Your task to perform on an android device: Search for asus zenbook on newegg, select the first entry, add it to the cart, then select checkout. Image 0: 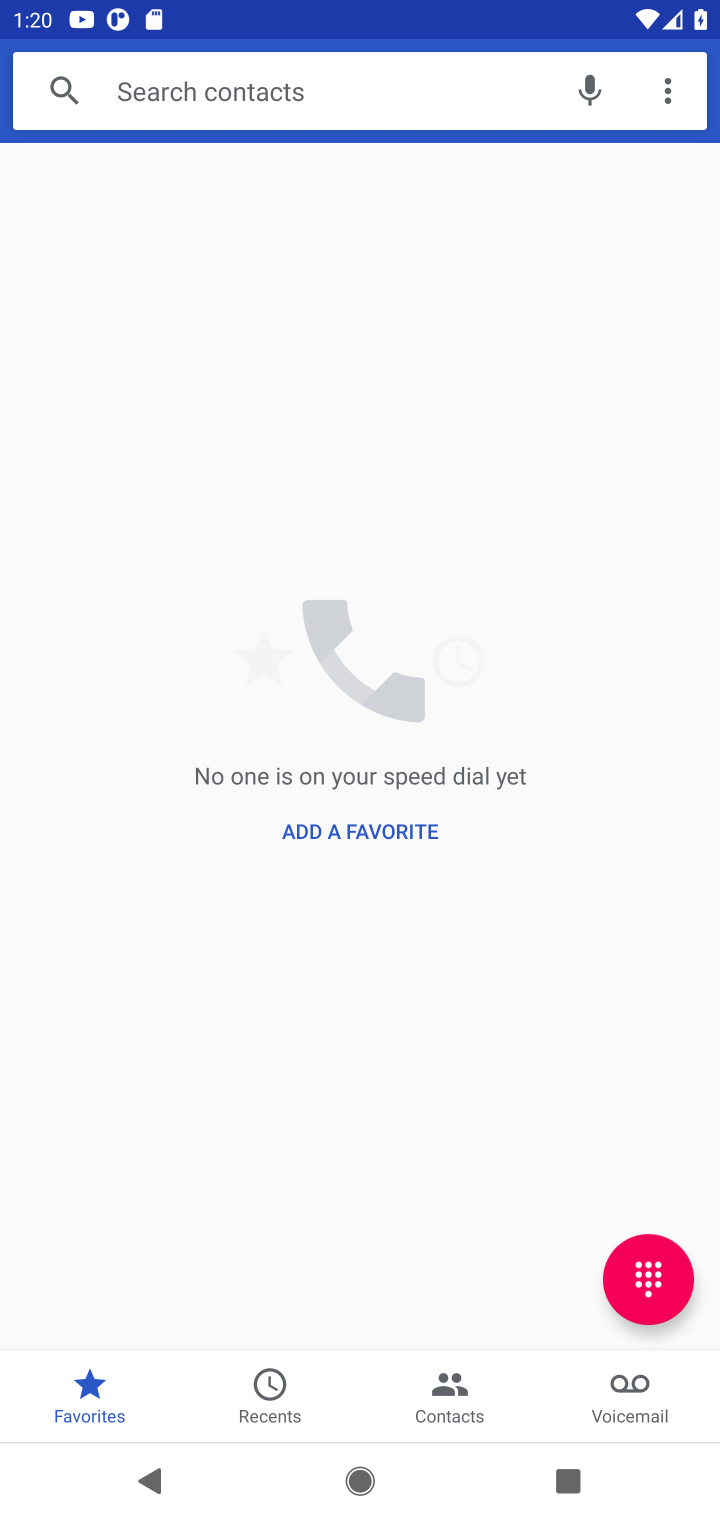
Step 0: press home button
Your task to perform on an android device: Search for asus zenbook on newegg, select the first entry, add it to the cart, then select checkout. Image 1: 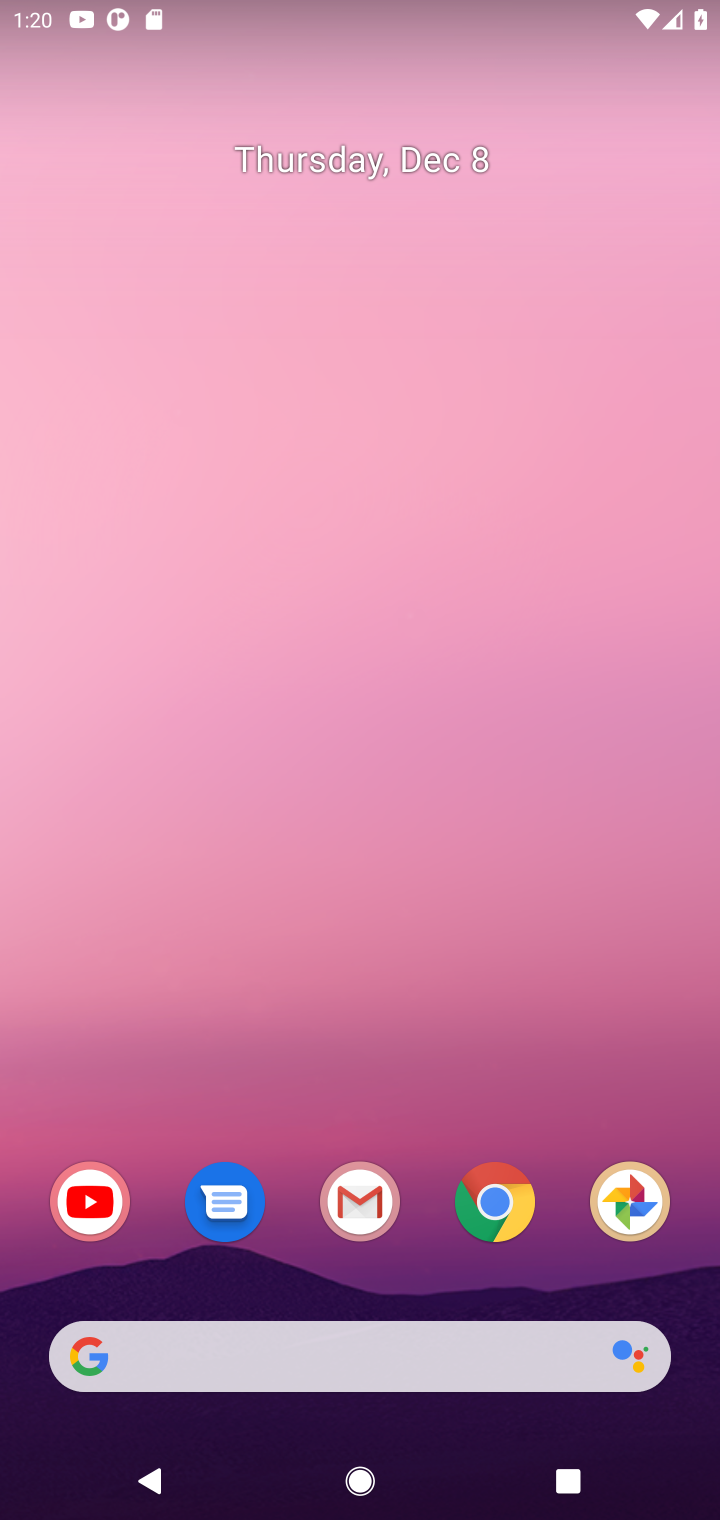
Step 1: click (488, 1212)
Your task to perform on an android device: Search for asus zenbook on newegg, select the first entry, add it to the cart, then select checkout. Image 2: 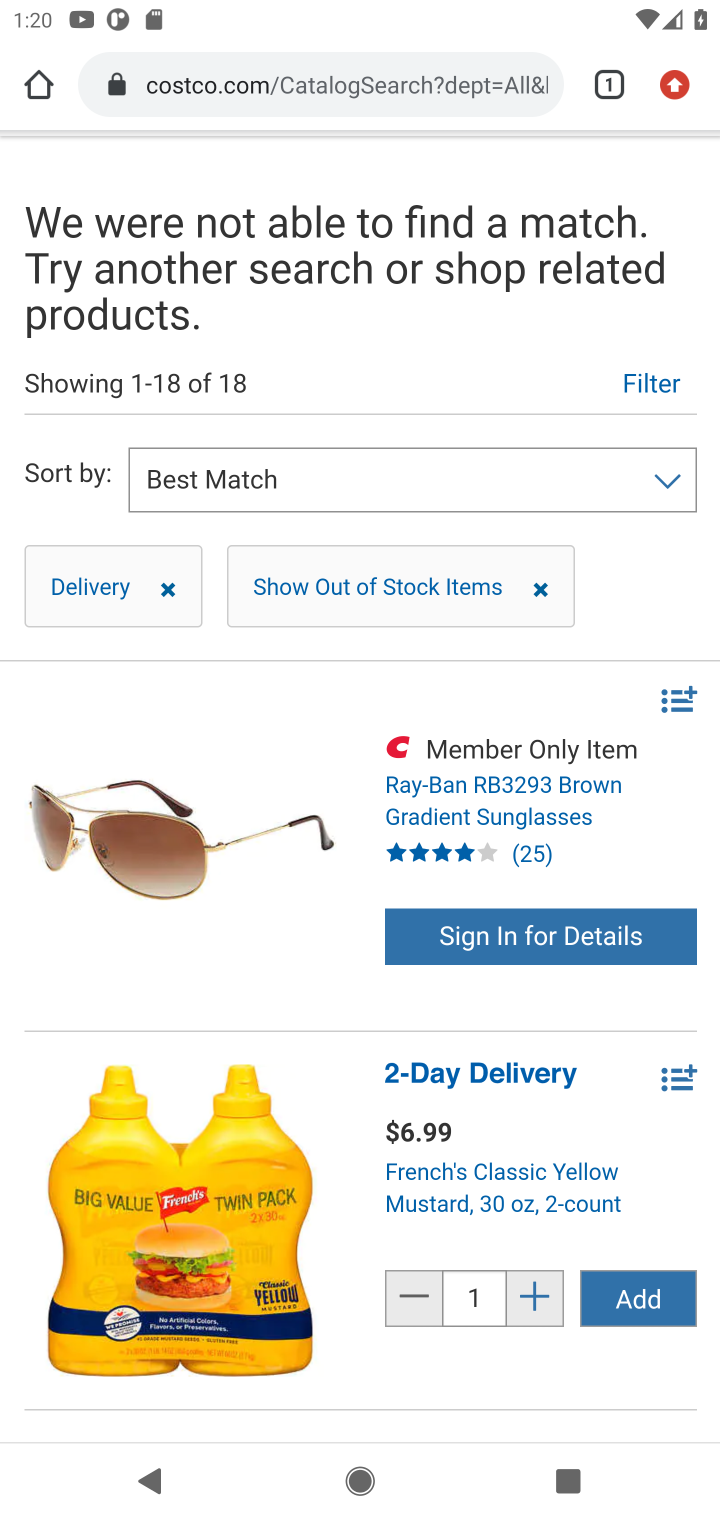
Step 2: click (213, 85)
Your task to perform on an android device: Search for asus zenbook on newegg, select the first entry, add it to the cart, then select checkout. Image 3: 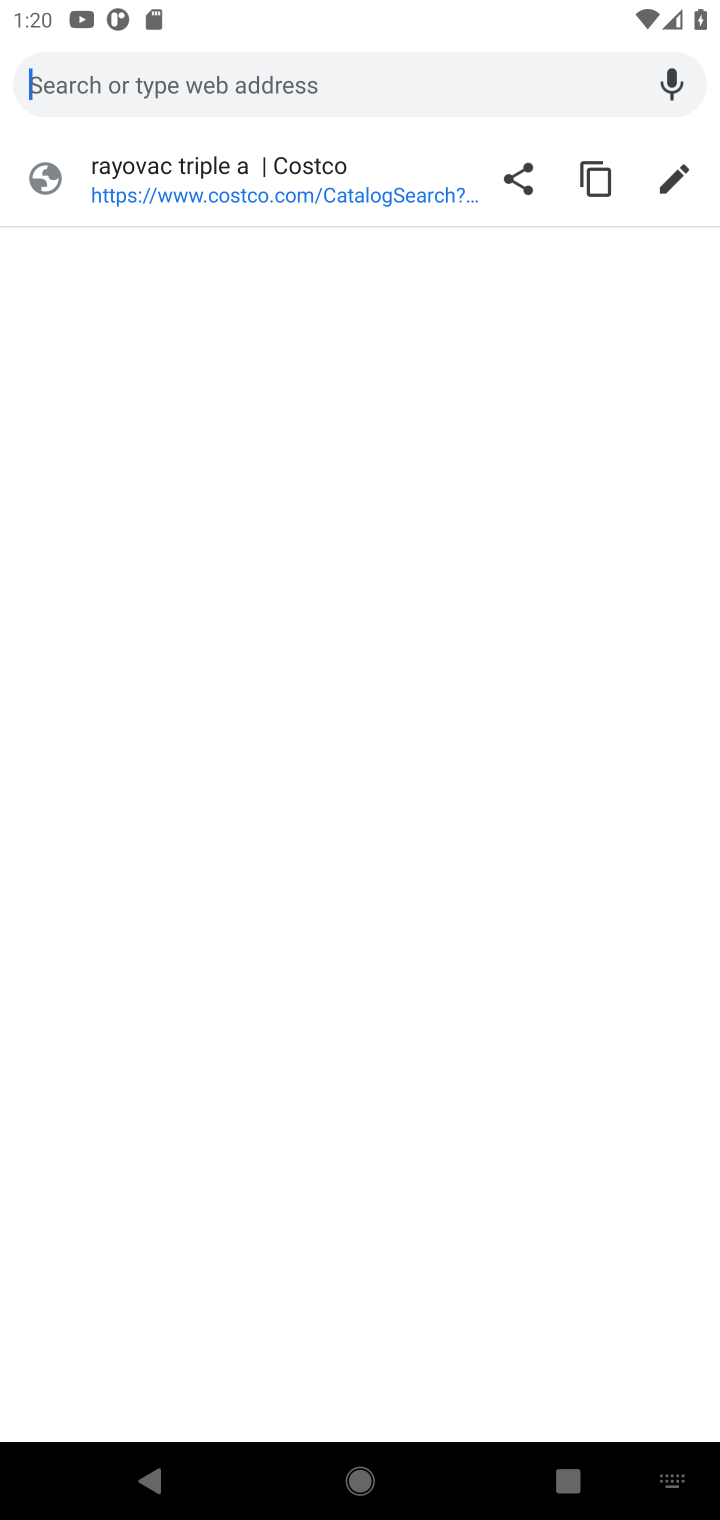
Step 3: type "newegg"
Your task to perform on an android device: Search for asus zenbook on newegg, select the first entry, add it to the cart, then select checkout. Image 4: 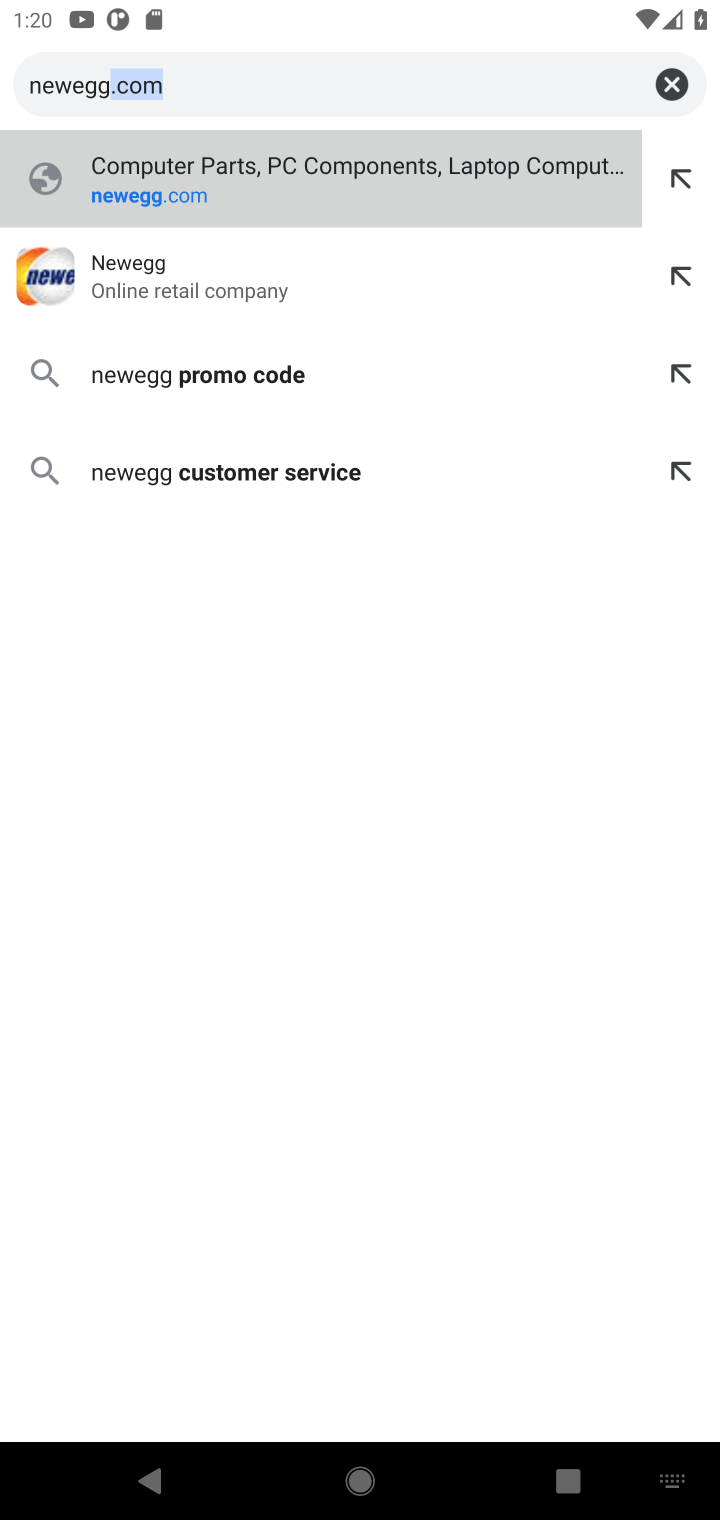
Step 4: click (228, 197)
Your task to perform on an android device: Search for asus zenbook on newegg, select the first entry, add it to the cart, then select checkout. Image 5: 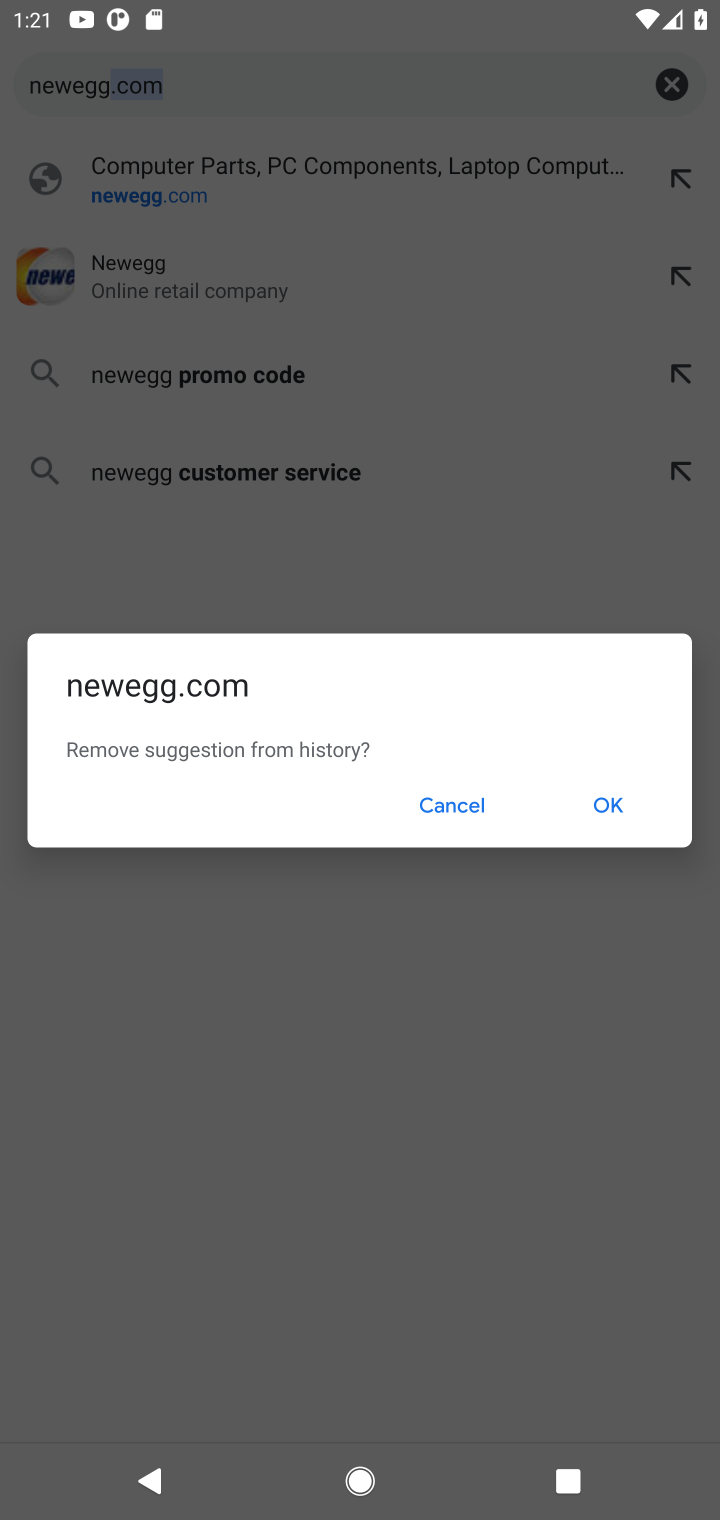
Step 5: click (621, 806)
Your task to perform on an android device: Search for asus zenbook on newegg, select the first entry, add it to the cart, then select checkout. Image 6: 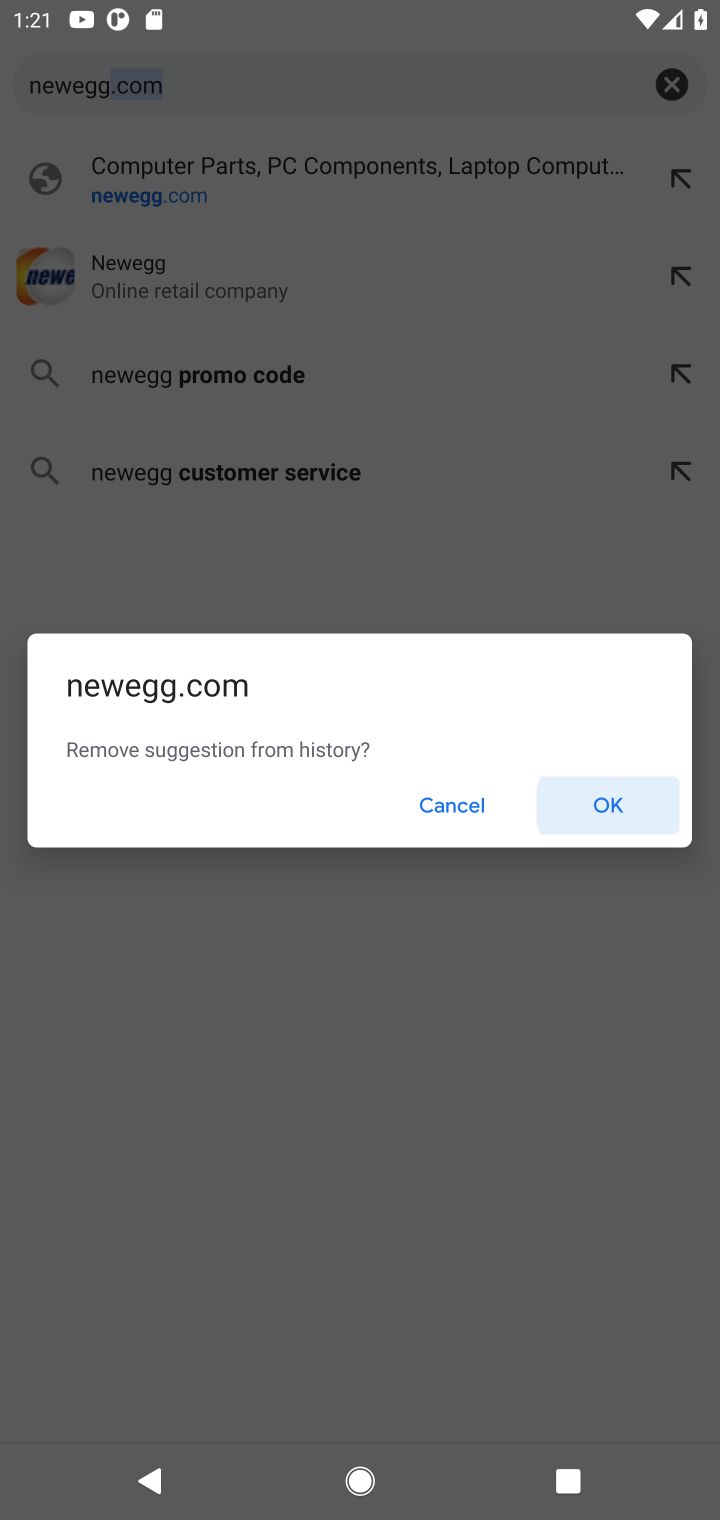
Step 6: click (607, 806)
Your task to perform on an android device: Search for asus zenbook on newegg, select the first entry, add it to the cart, then select checkout. Image 7: 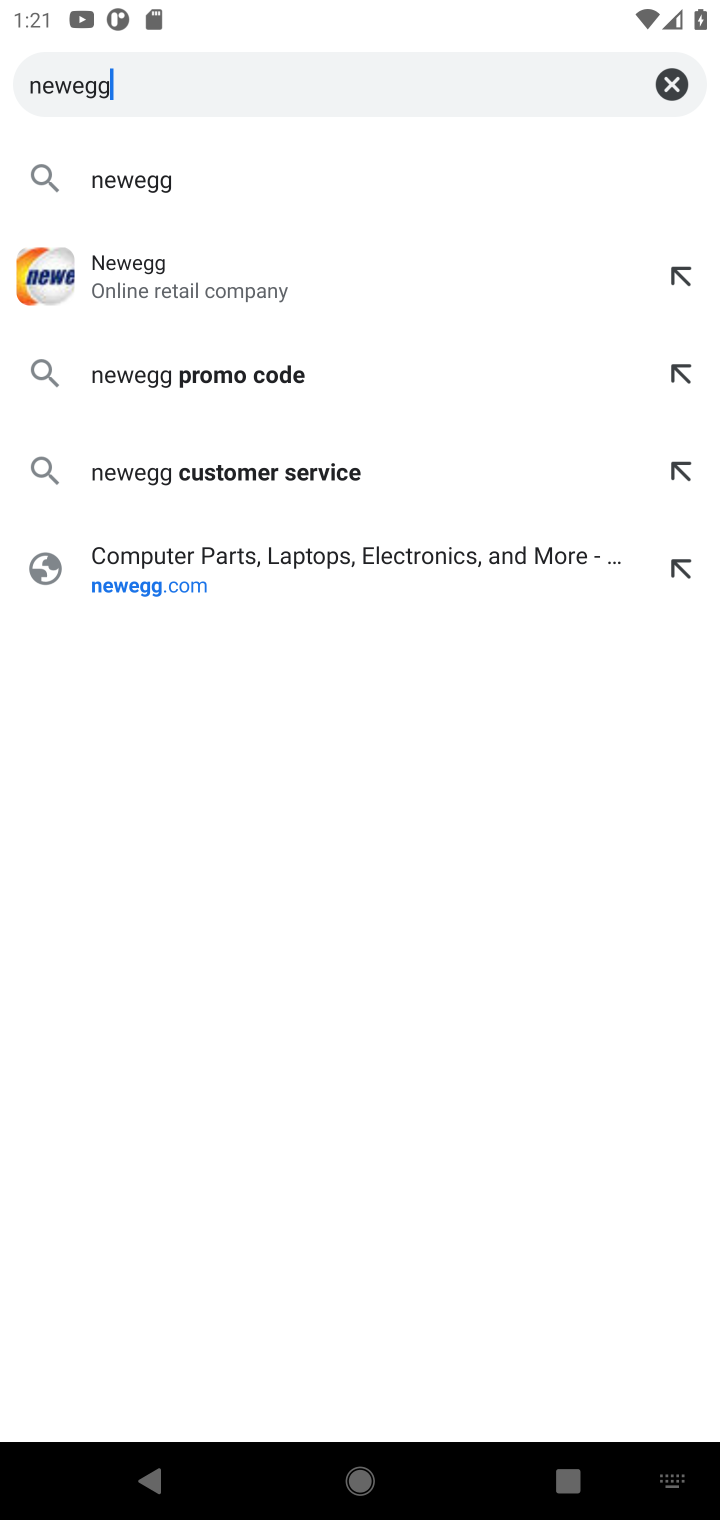
Step 7: click (235, 577)
Your task to perform on an android device: Search for asus zenbook on newegg, select the first entry, add it to the cart, then select checkout. Image 8: 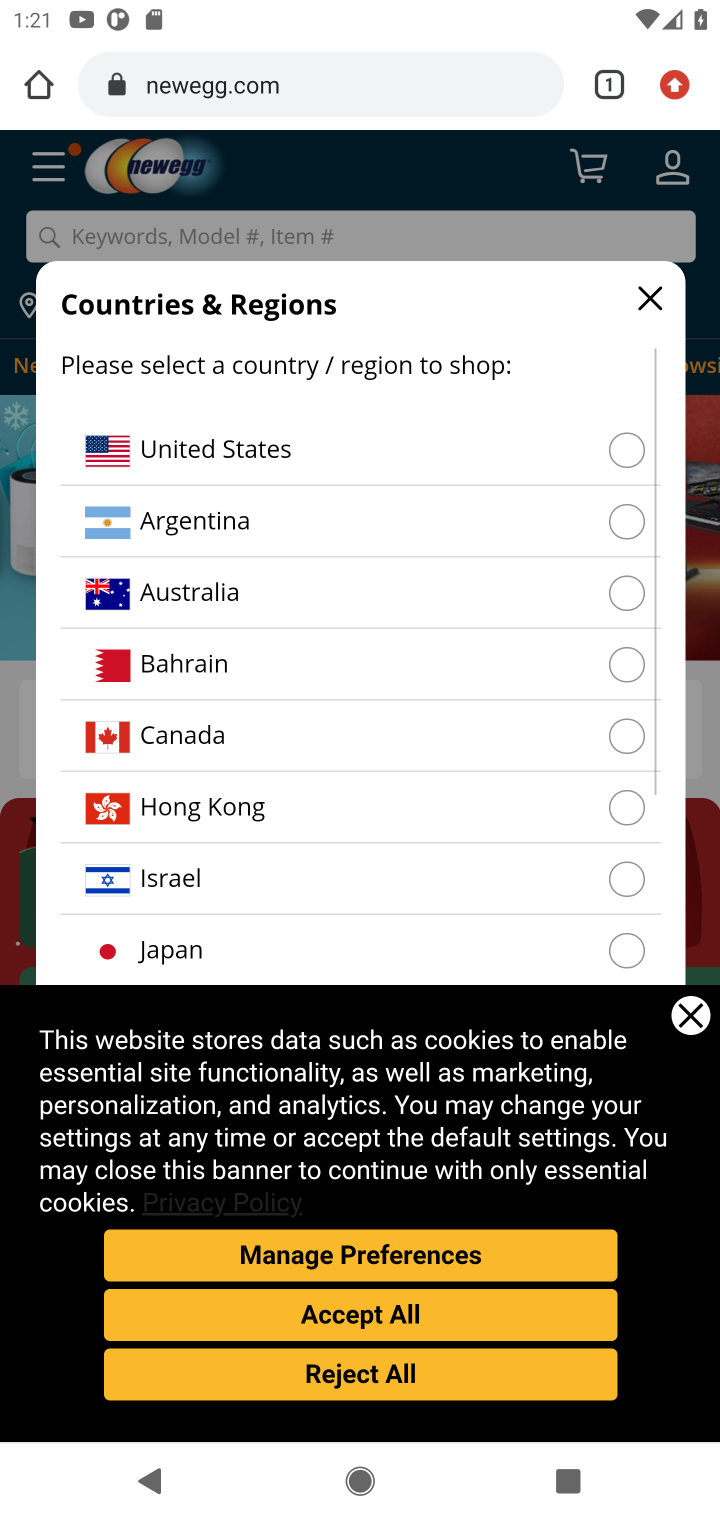
Step 8: click (373, 1323)
Your task to perform on an android device: Search for asus zenbook on newegg, select the first entry, add it to the cart, then select checkout. Image 9: 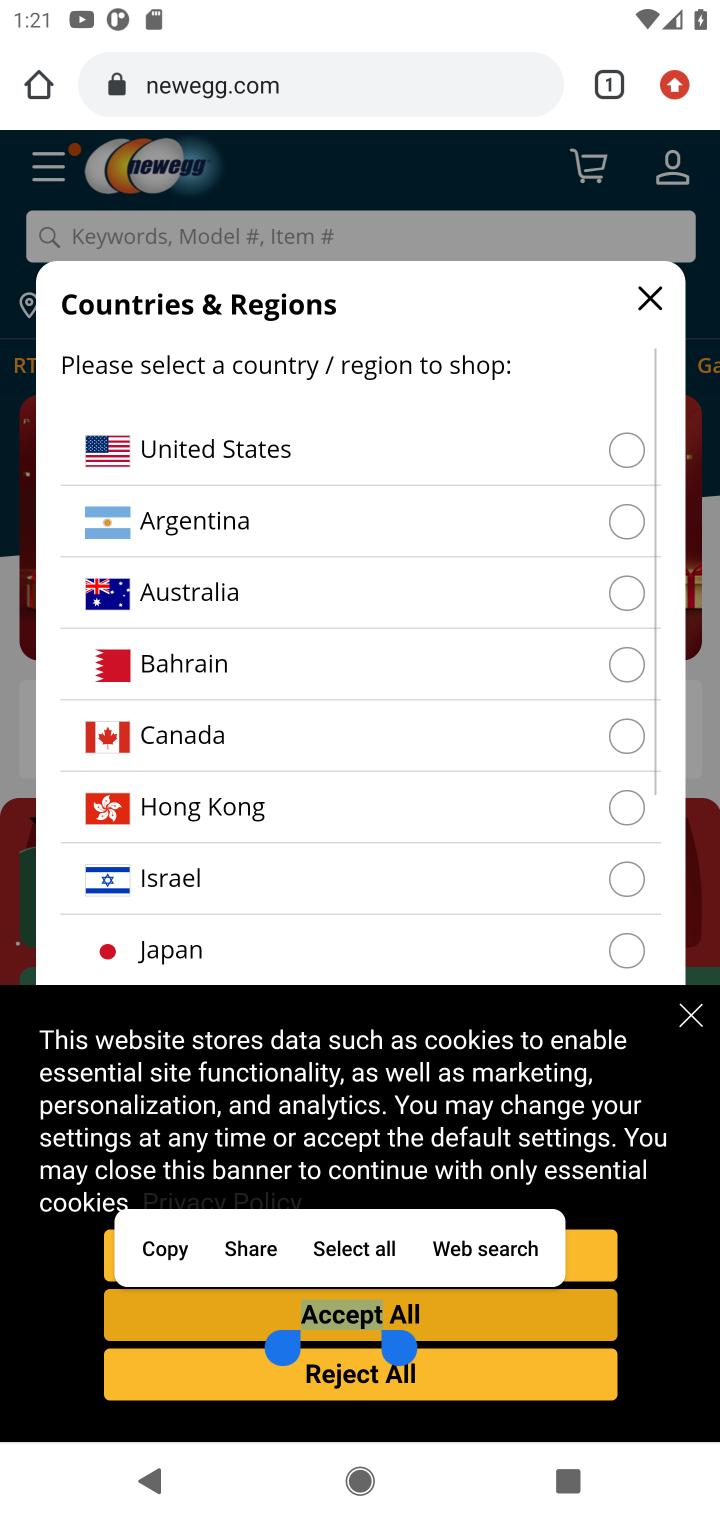
Step 9: click (372, 1322)
Your task to perform on an android device: Search for asus zenbook on newegg, select the first entry, add it to the cart, then select checkout. Image 10: 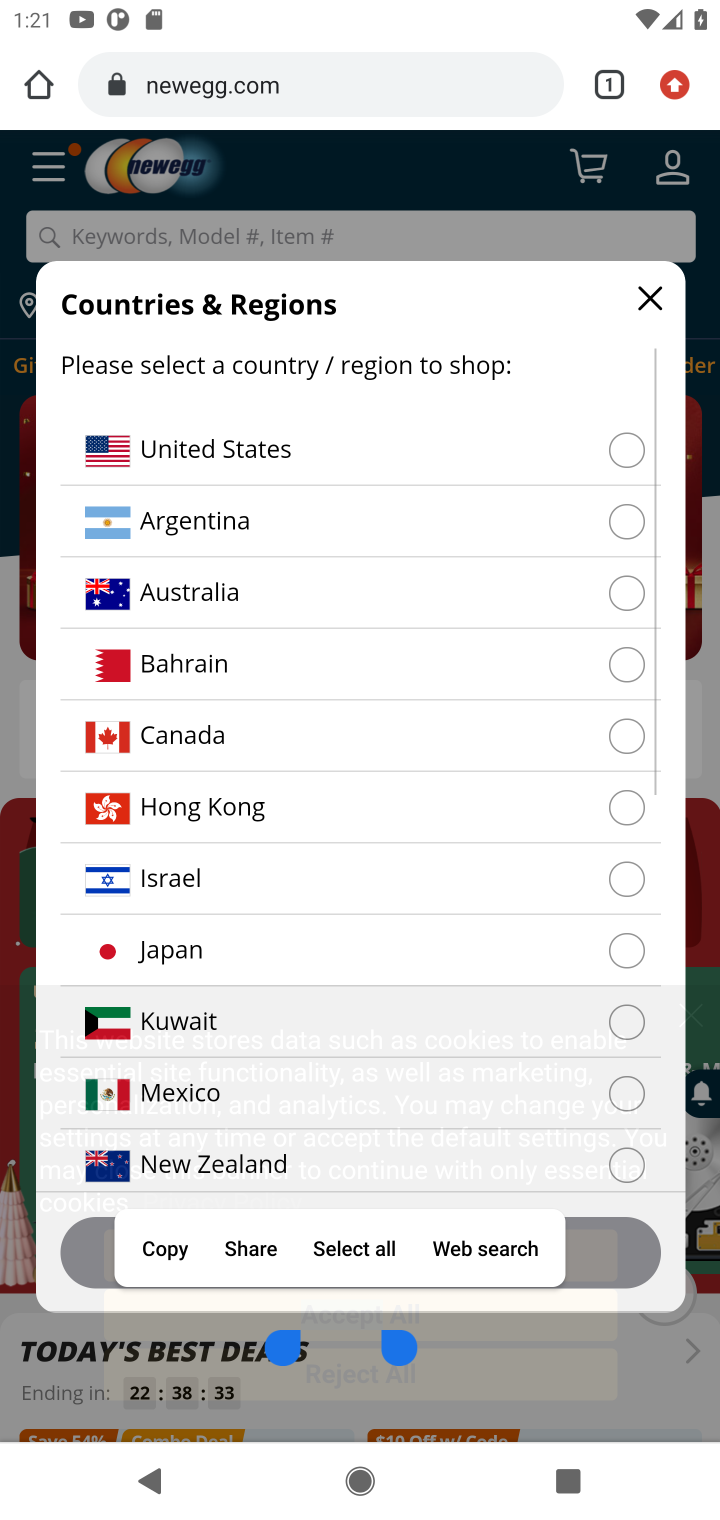
Step 10: click (505, 1329)
Your task to perform on an android device: Search for asus zenbook on newegg, select the first entry, add it to the cart, then select checkout. Image 11: 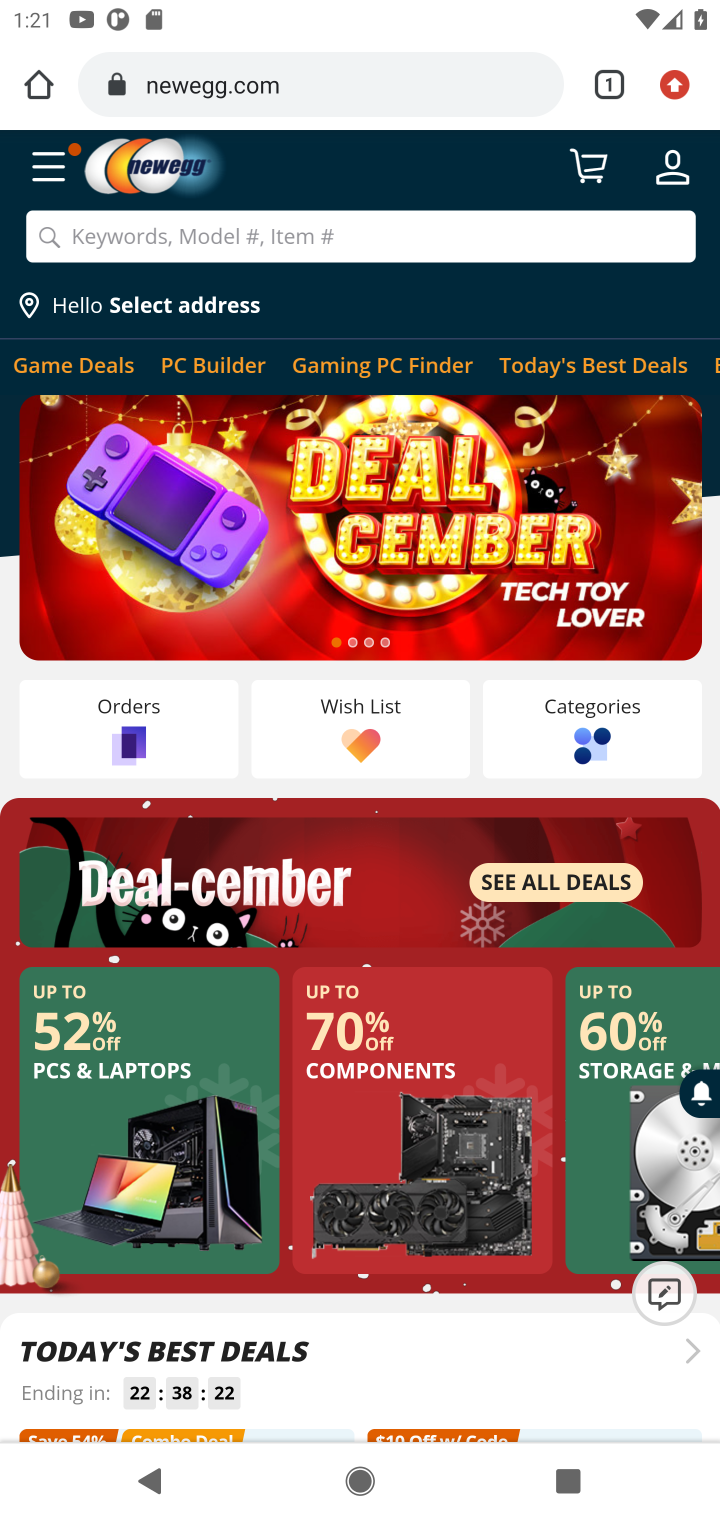
Step 11: click (191, 231)
Your task to perform on an android device: Search for asus zenbook on newegg, select the first entry, add it to the cart, then select checkout. Image 12: 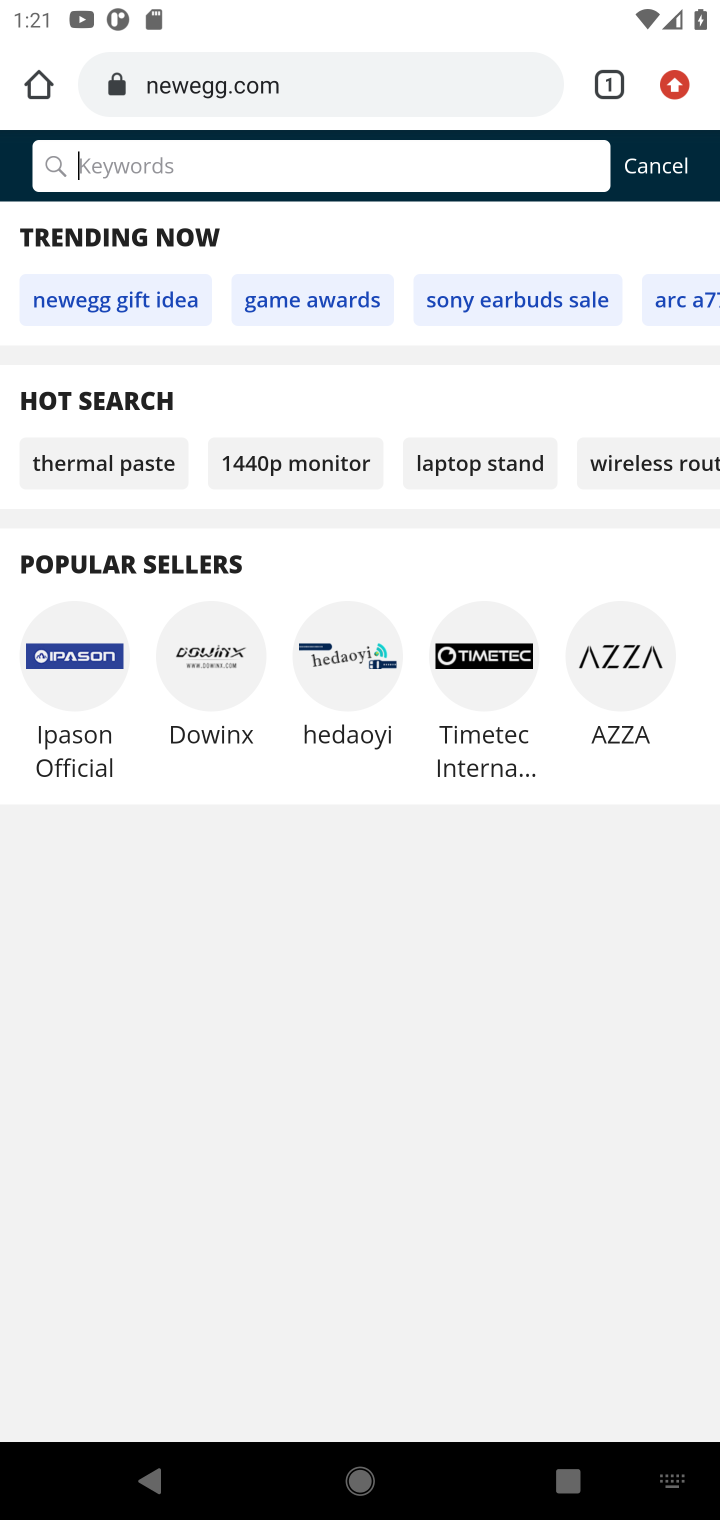
Step 12: type "asus zenbook "
Your task to perform on an android device: Search for asus zenbook on newegg, select the first entry, add it to the cart, then select checkout. Image 13: 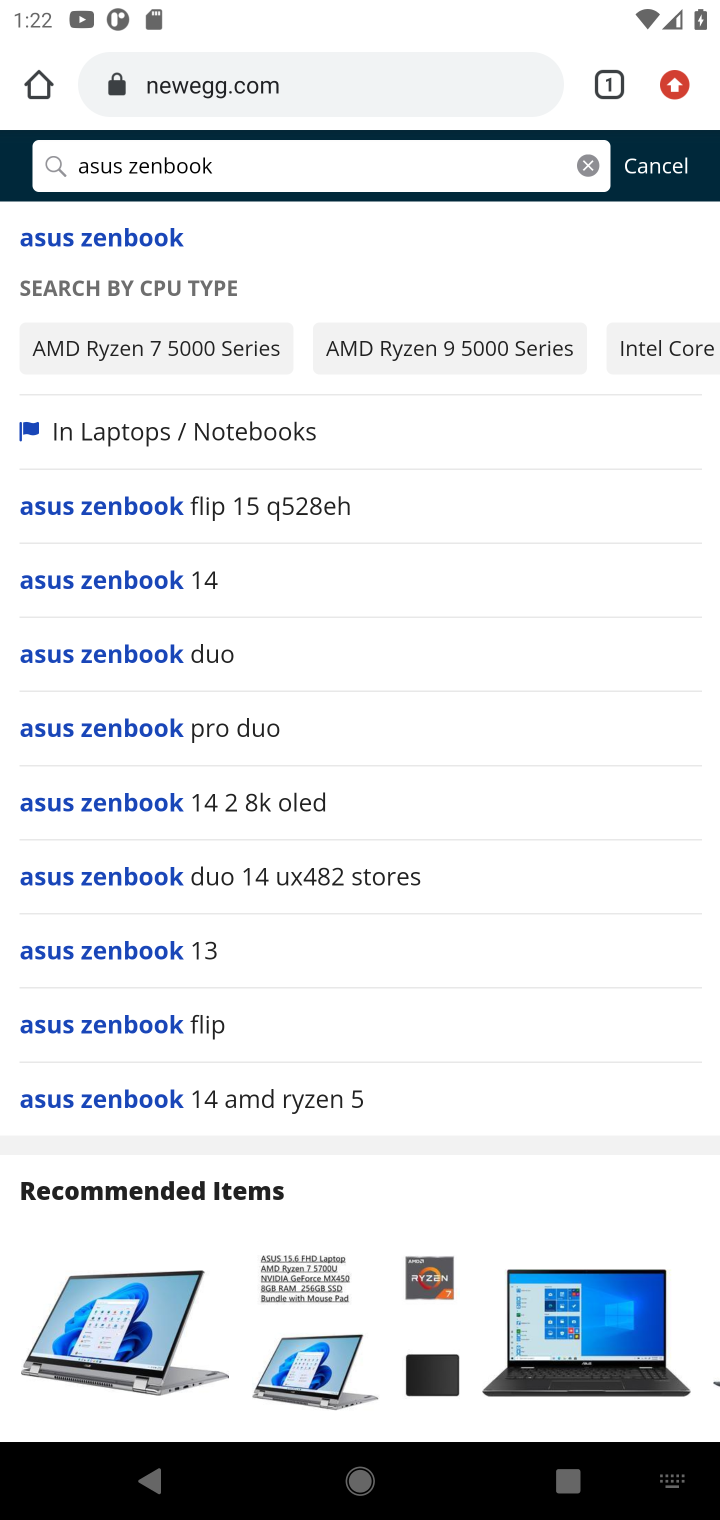
Step 13: press enter
Your task to perform on an android device: Search for asus zenbook on newegg, select the first entry, add it to the cart, then select checkout. Image 14: 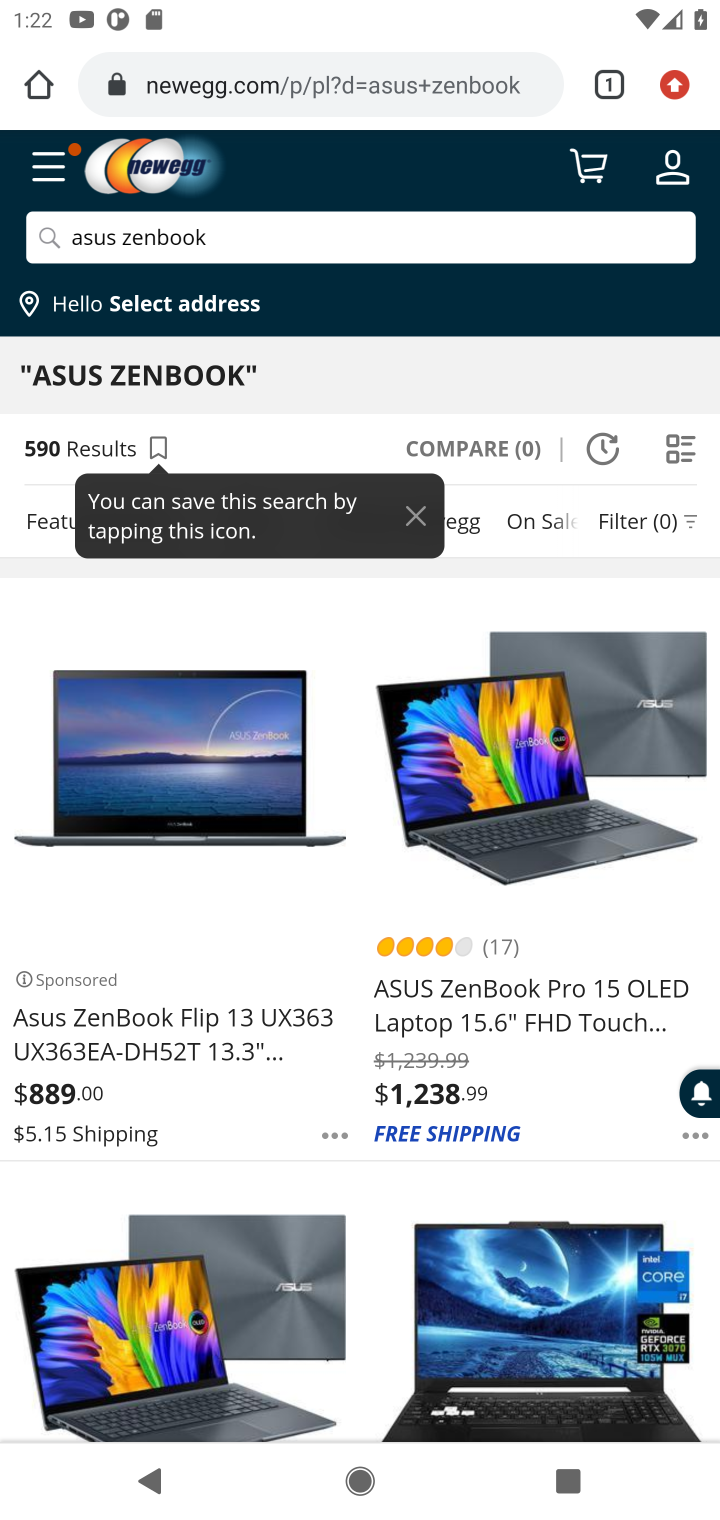
Step 14: click (248, 1034)
Your task to perform on an android device: Search for asus zenbook on newegg, select the first entry, add it to the cart, then select checkout. Image 15: 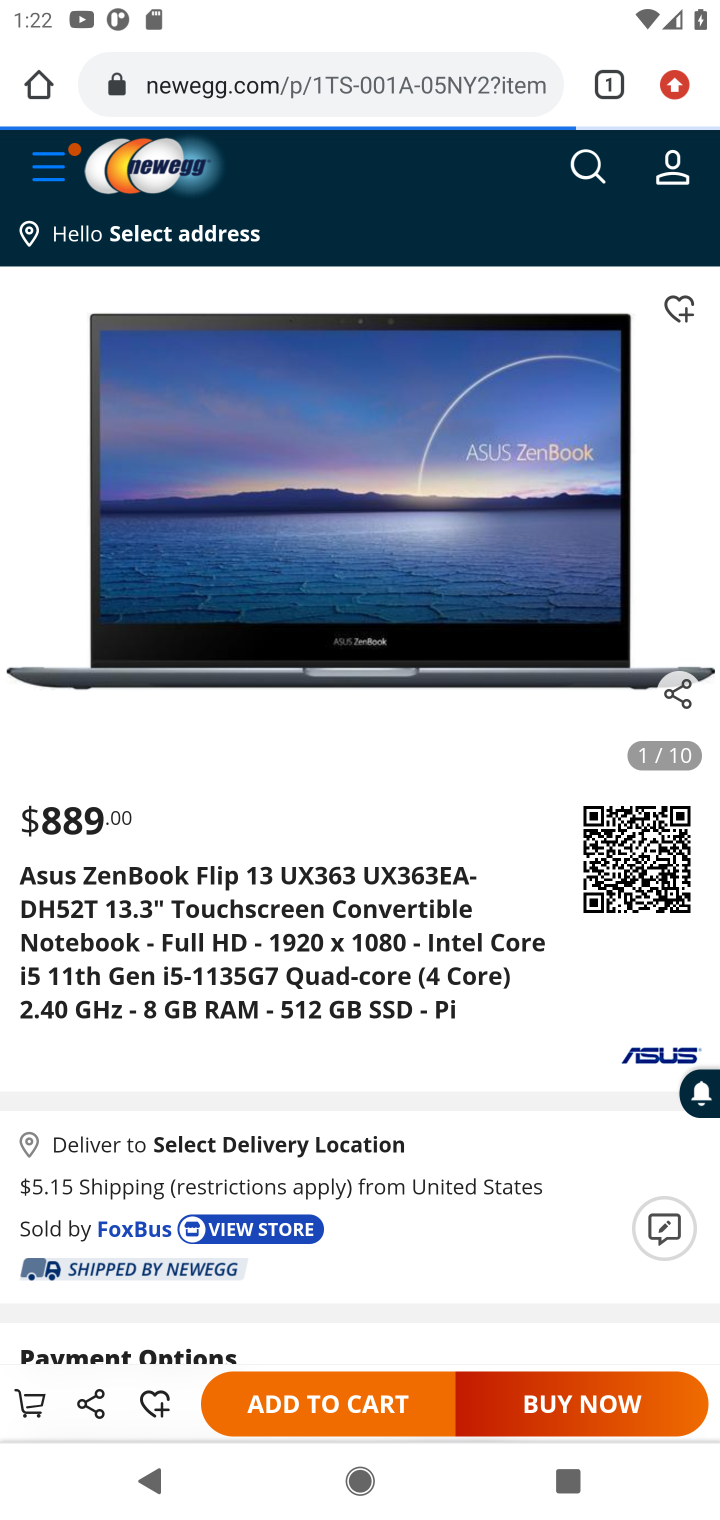
Step 15: click (387, 1406)
Your task to perform on an android device: Search for asus zenbook on newegg, select the first entry, add it to the cart, then select checkout. Image 16: 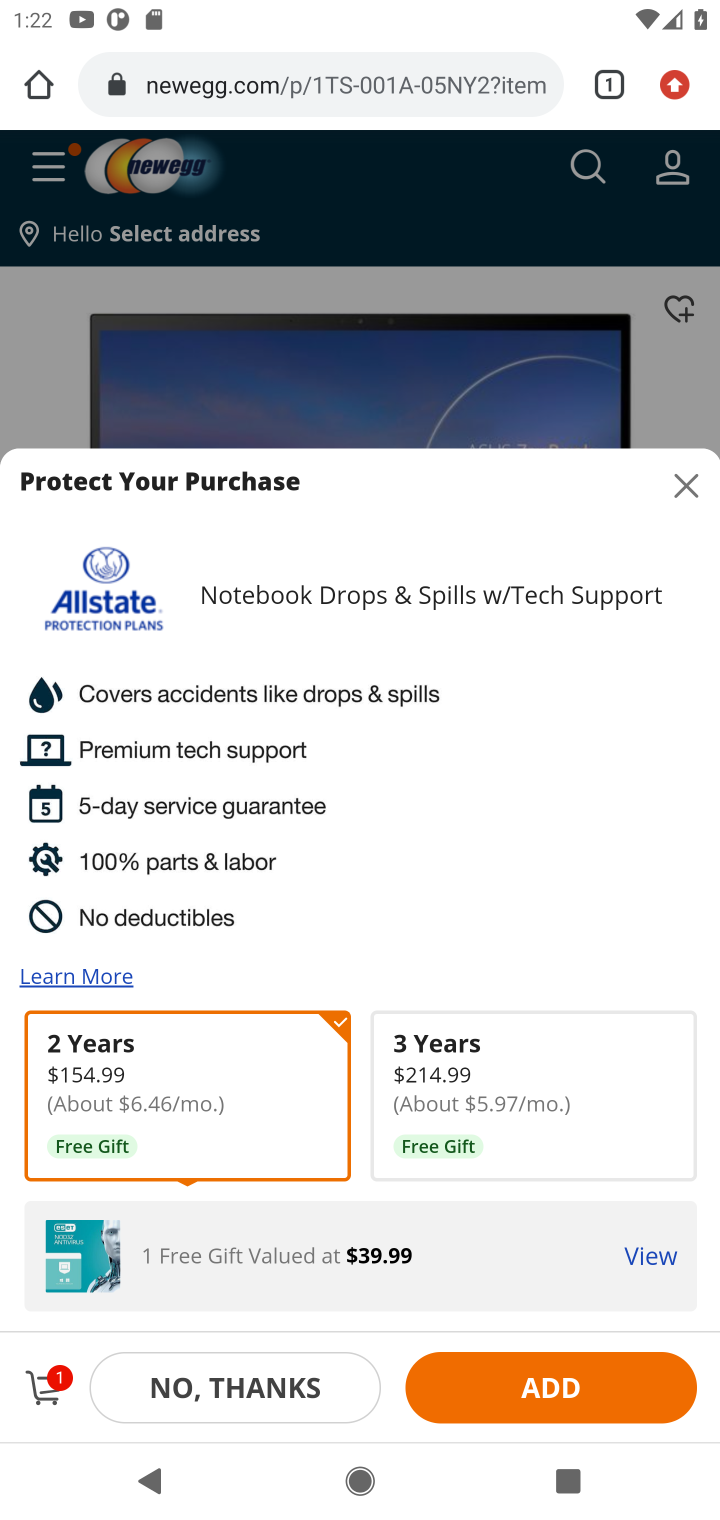
Step 16: click (511, 1391)
Your task to perform on an android device: Search for asus zenbook on newegg, select the first entry, add it to the cart, then select checkout. Image 17: 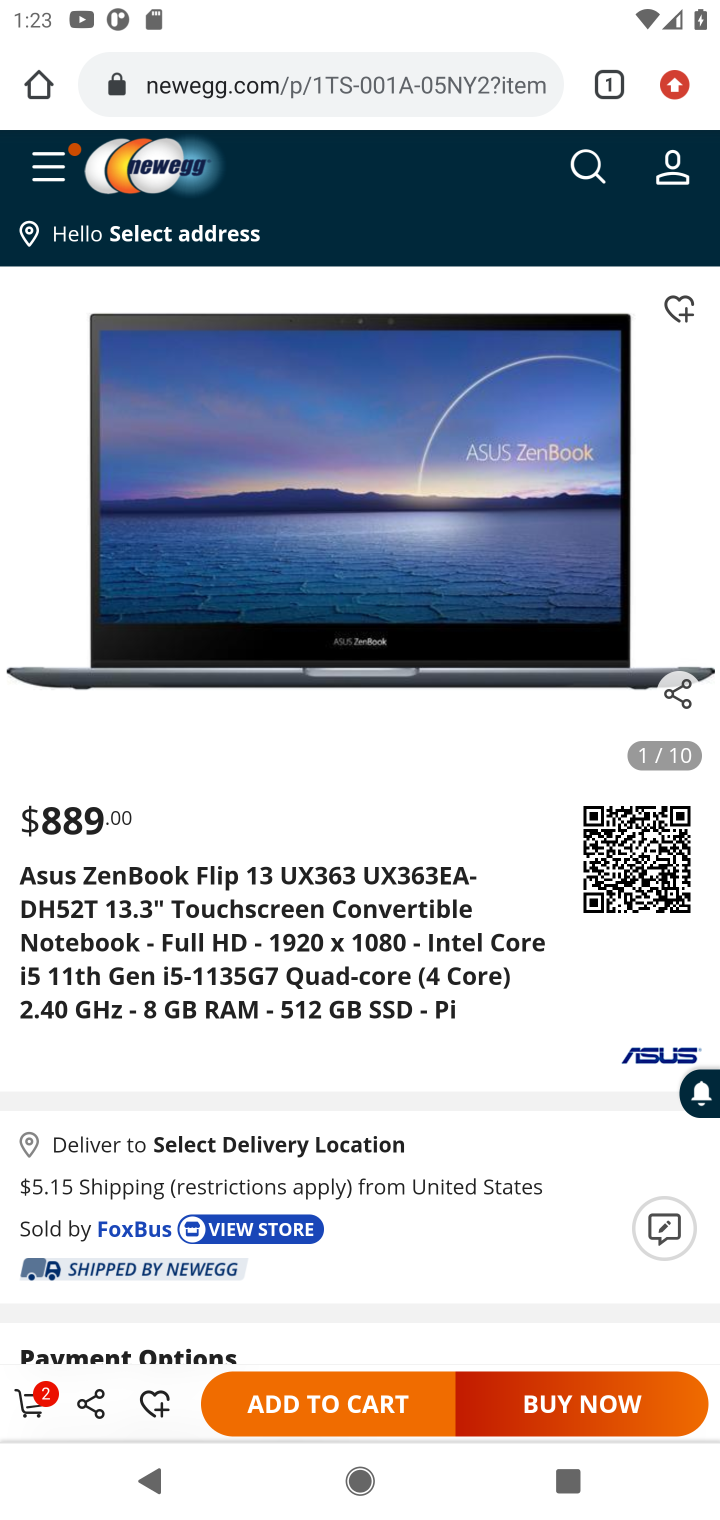
Step 17: click (30, 1417)
Your task to perform on an android device: Search for asus zenbook on newegg, select the first entry, add it to the cart, then select checkout. Image 18: 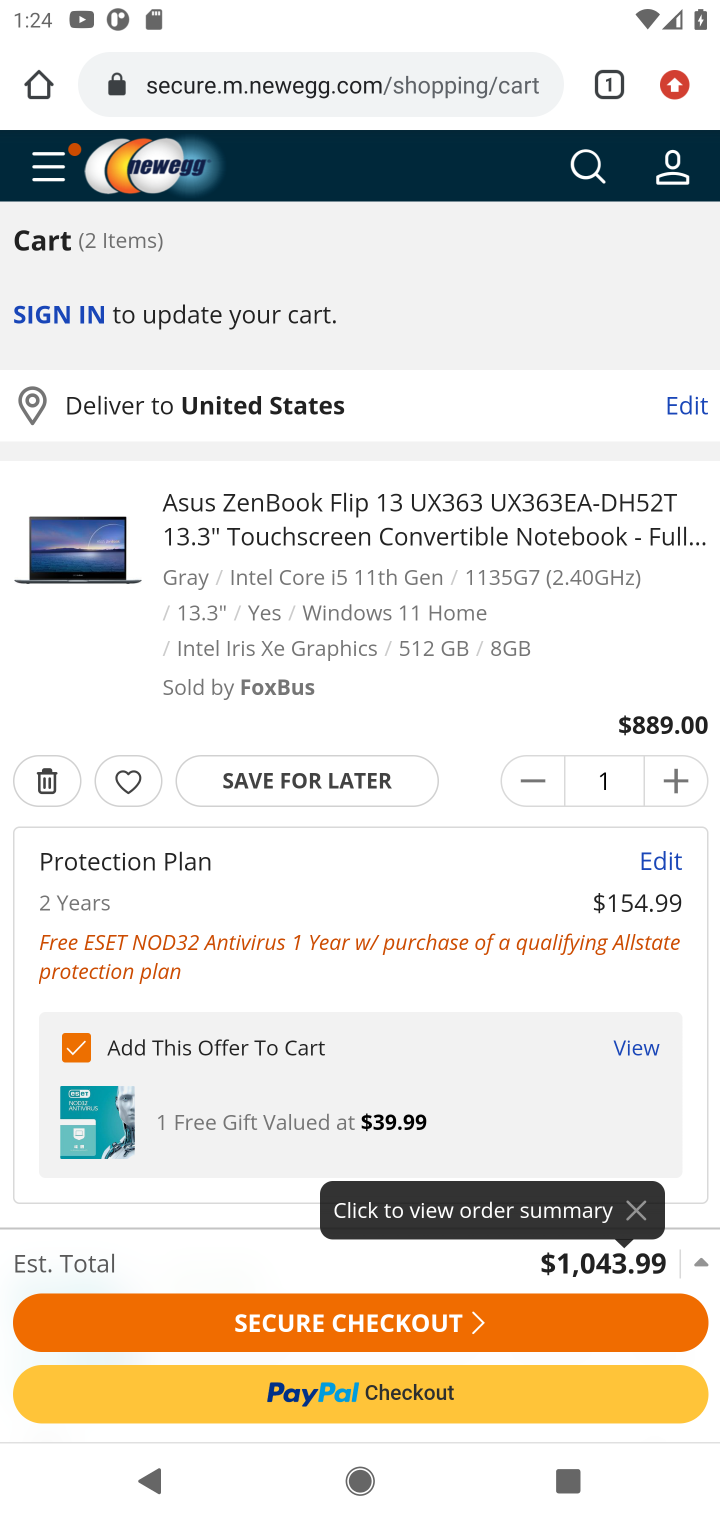
Step 18: click (421, 1326)
Your task to perform on an android device: Search for asus zenbook on newegg, select the first entry, add it to the cart, then select checkout. Image 19: 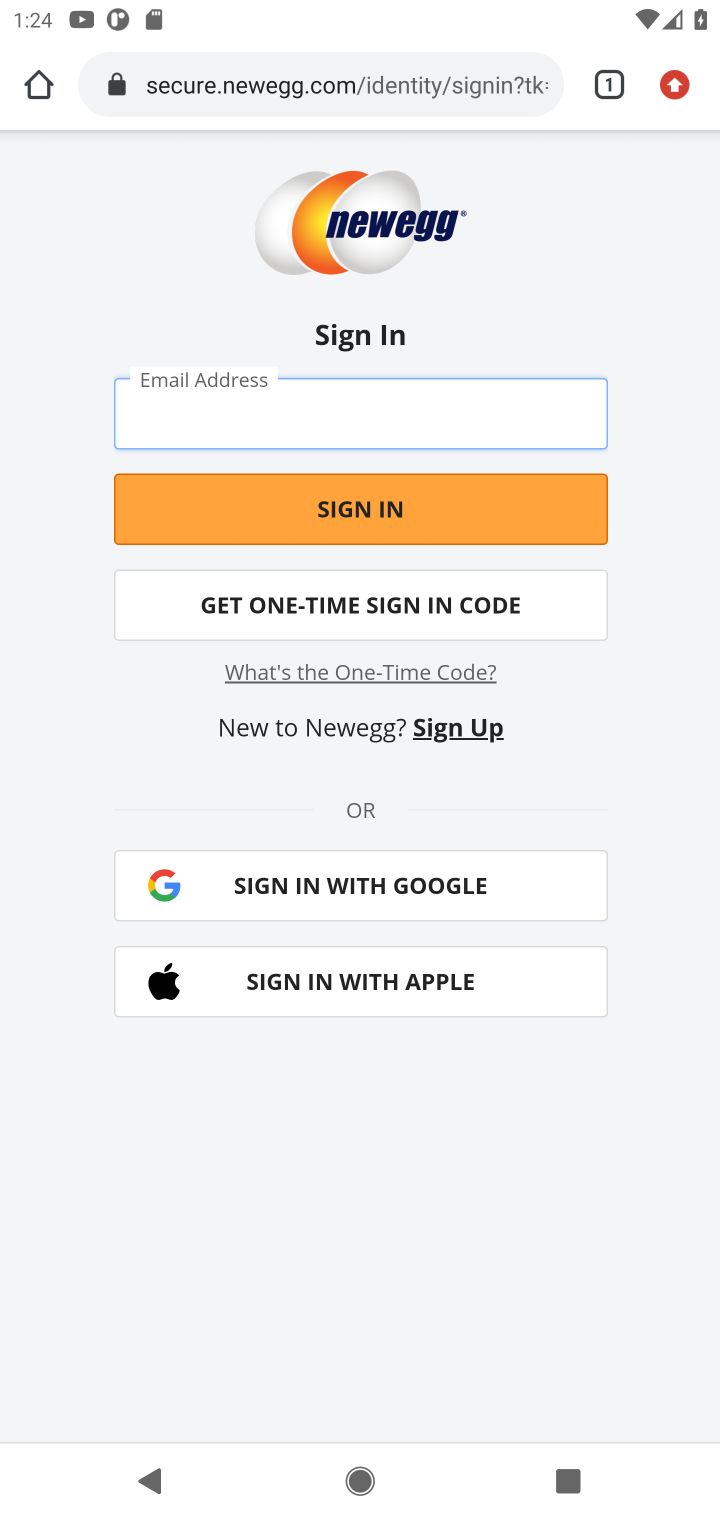
Step 19: task complete